Your task to perform on an android device: check battery use Image 0: 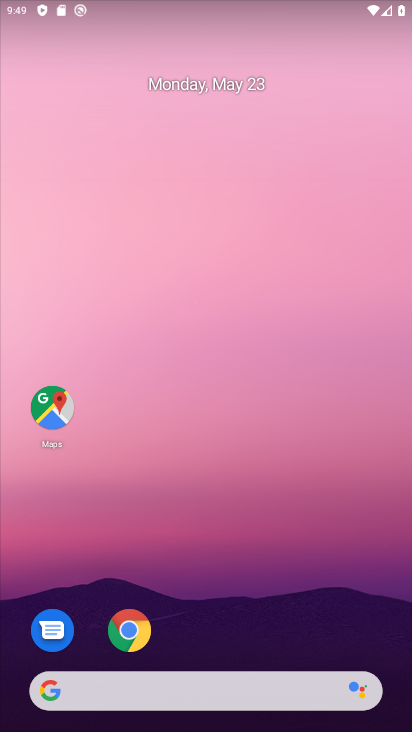
Step 0: drag from (266, 620) to (302, 14)
Your task to perform on an android device: check battery use Image 1: 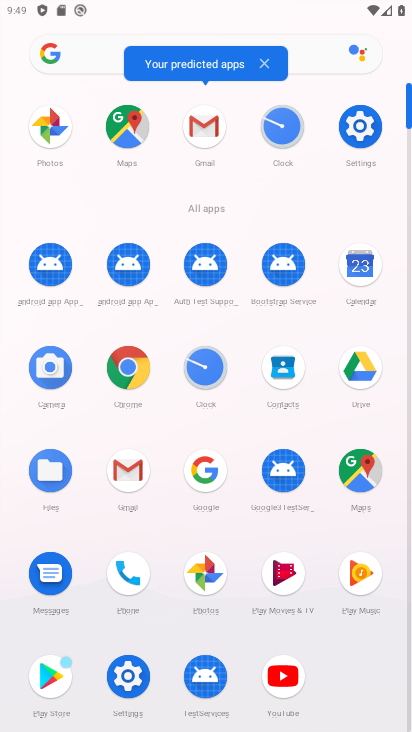
Step 1: click (356, 133)
Your task to perform on an android device: check battery use Image 2: 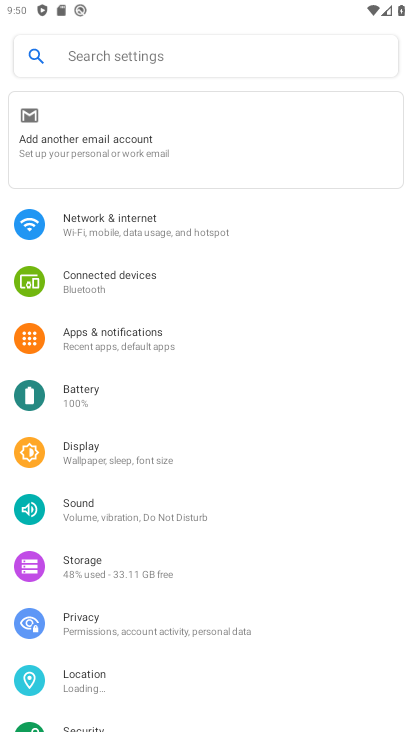
Step 2: click (90, 395)
Your task to perform on an android device: check battery use Image 3: 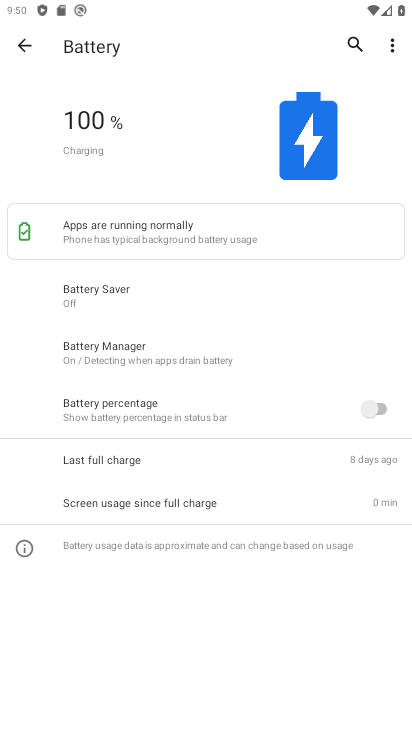
Step 3: click (395, 45)
Your task to perform on an android device: check battery use Image 4: 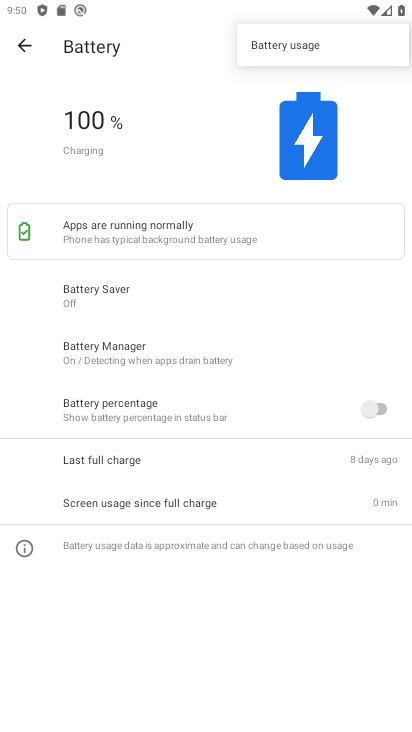
Step 4: click (265, 42)
Your task to perform on an android device: check battery use Image 5: 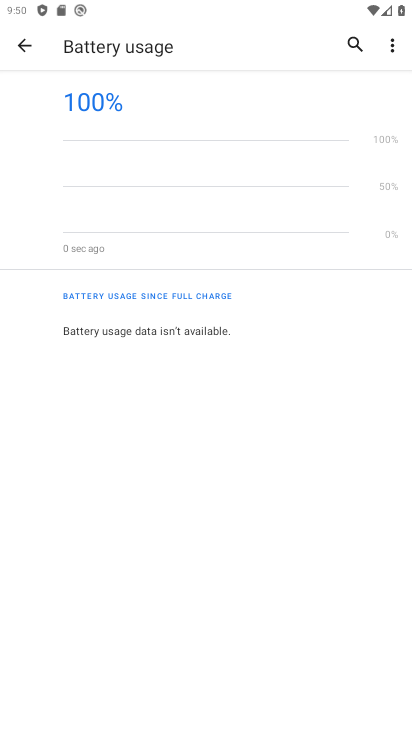
Step 5: task complete